Your task to perform on an android device: Open Google Chrome and open the bookmarks view Image 0: 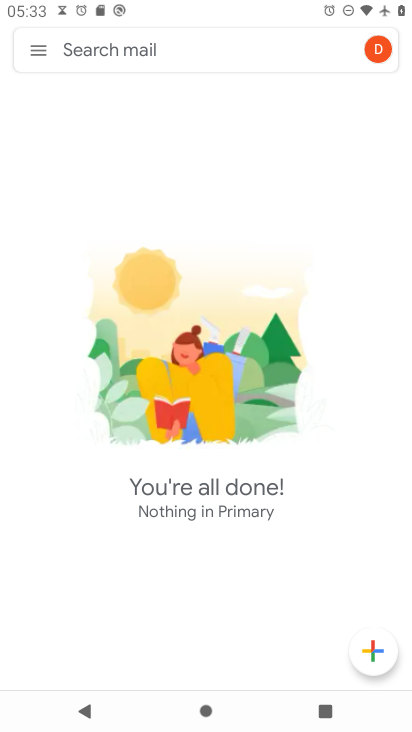
Step 0: press back button
Your task to perform on an android device: Open Google Chrome and open the bookmarks view Image 1: 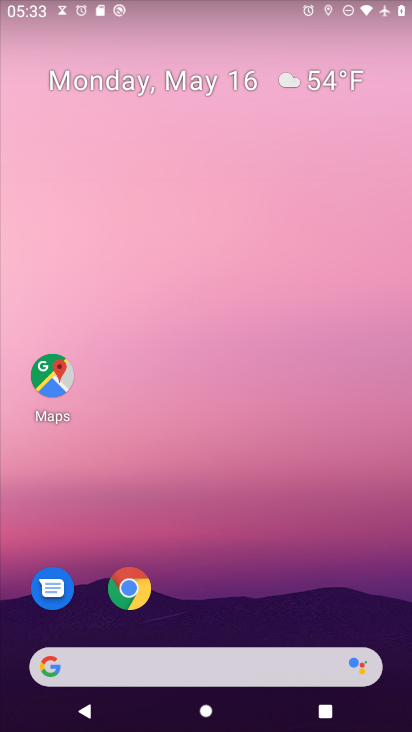
Step 1: drag from (240, 536) to (239, 94)
Your task to perform on an android device: Open Google Chrome and open the bookmarks view Image 2: 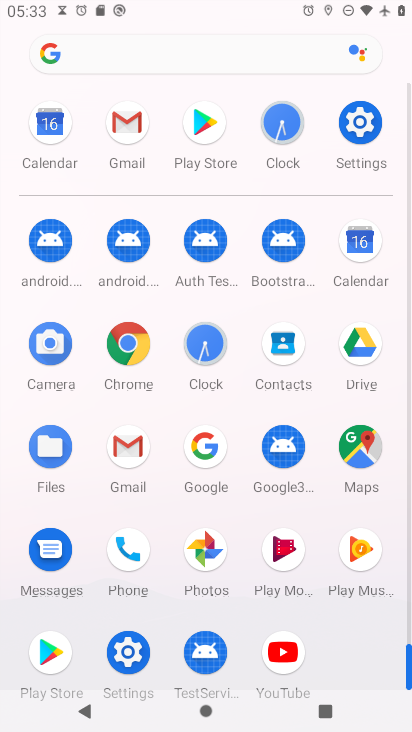
Step 2: drag from (0, 430) to (20, 166)
Your task to perform on an android device: Open Google Chrome and open the bookmarks view Image 3: 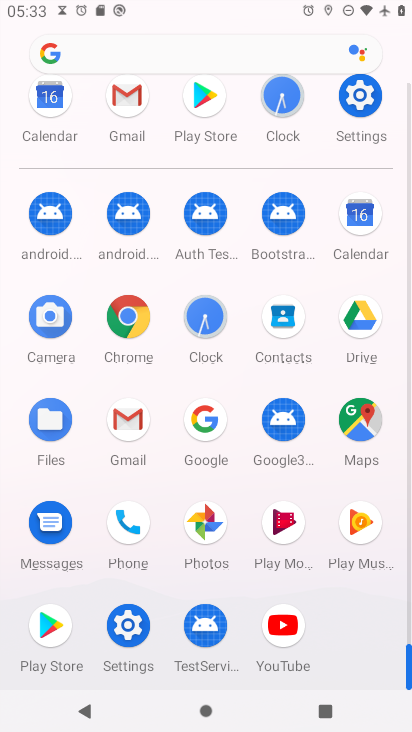
Step 3: click (122, 317)
Your task to perform on an android device: Open Google Chrome and open the bookmarks view Image 4: 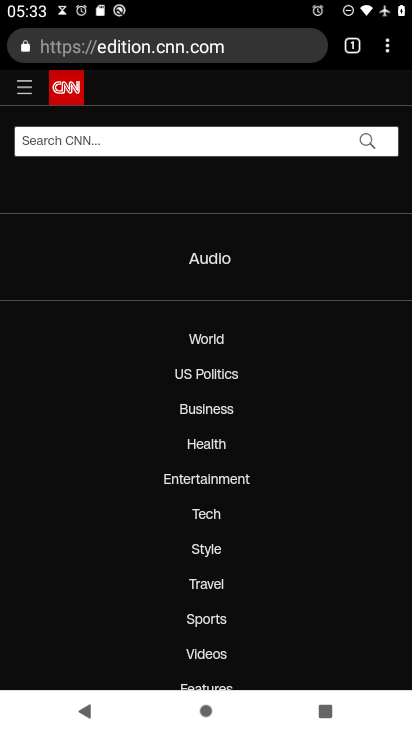
Step 4: task complete